Your task to perform on an android device: Open Android settings Image 0: 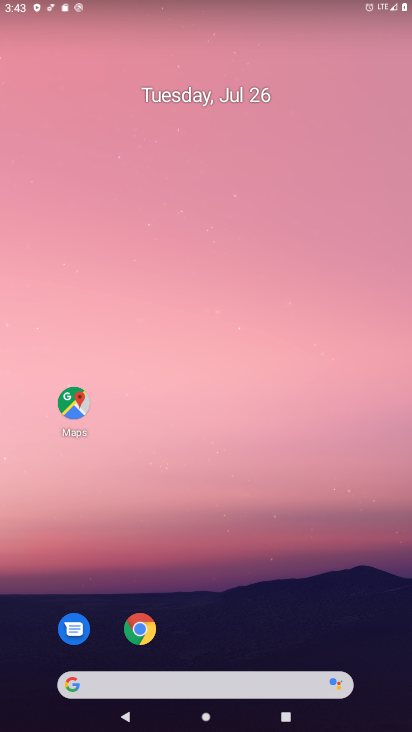
Step 0: drag from (235, 728) to (251, 308)
Your task to perform on an android device: Open Android settings Image 1: 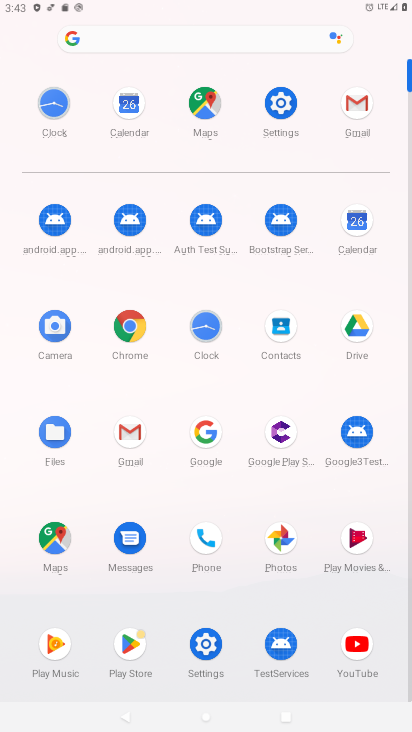
Step 1: click (271, 100)
Your task to perform on an android device: Open Android settings Image 2: 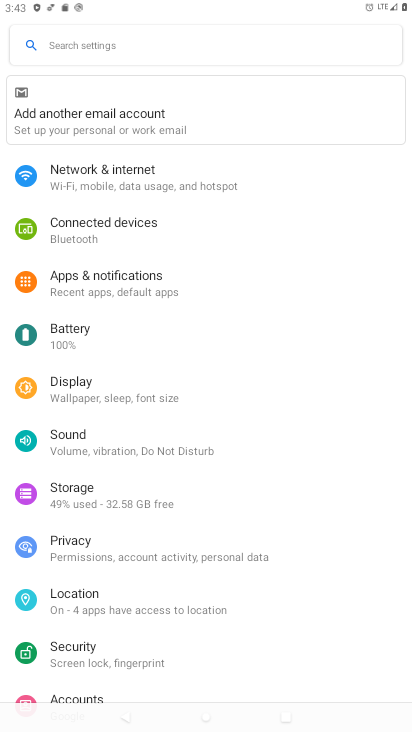
Step 2: task complete